Your task to perform on an android device: Go to Wikipedia Image 0: 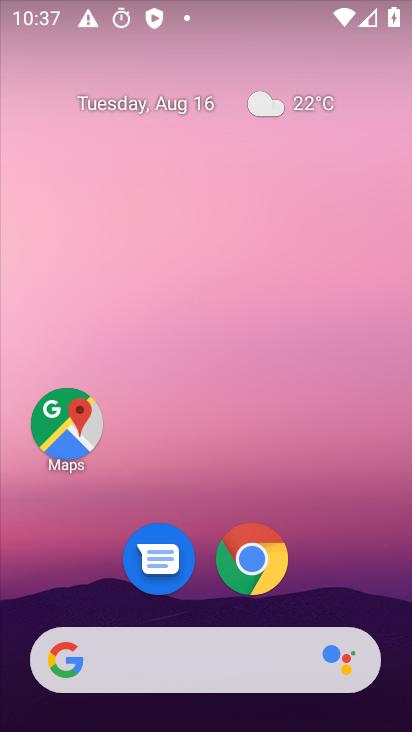
Step 0: click (253, 556)
Your task to perform on an android device: Go to Wikipedia Image 1: 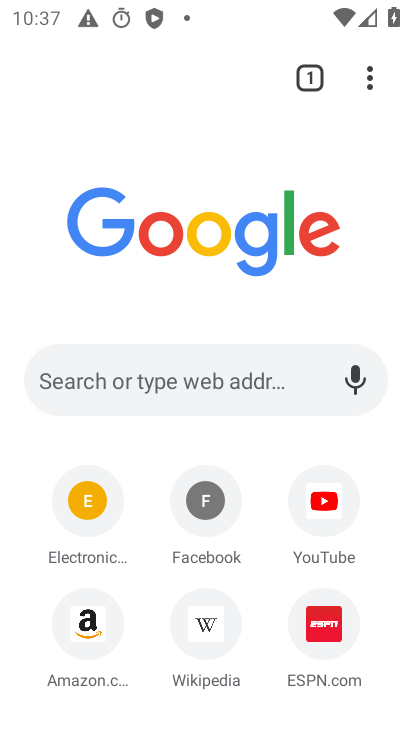
Step 1: click (207, 631)
Your task to perform on an android device: Go to Wikipedia Image 2: 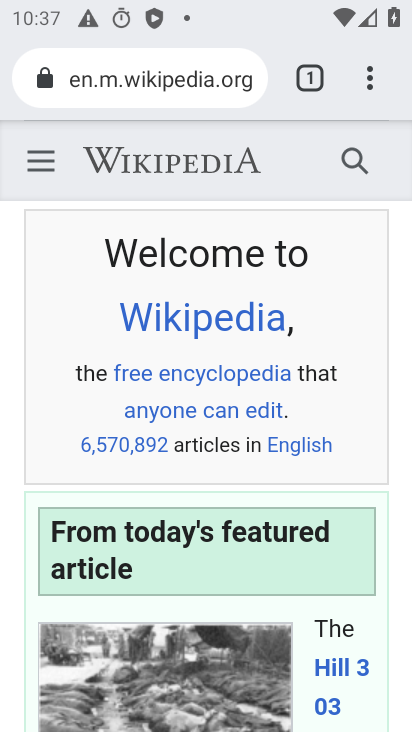
Step 2: task complete